Your task to perform on an android device: turn on data saver in the chrome app Image 0: 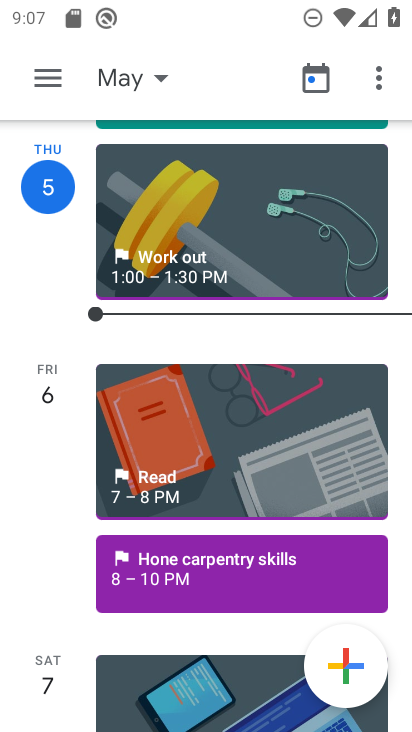
Step 0: press home button
Your task to perform on an android device: turn on data saver in the chrome app Image 1: 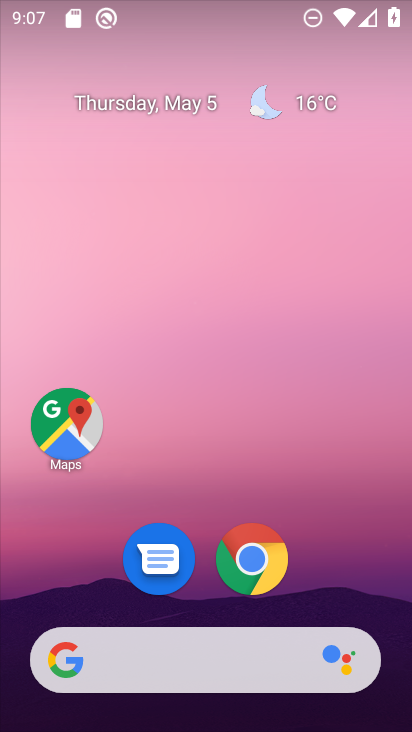
Step 1: click (258, 562)
Your task to perform on an android device: turn on data saver in the chrome app Image 2: 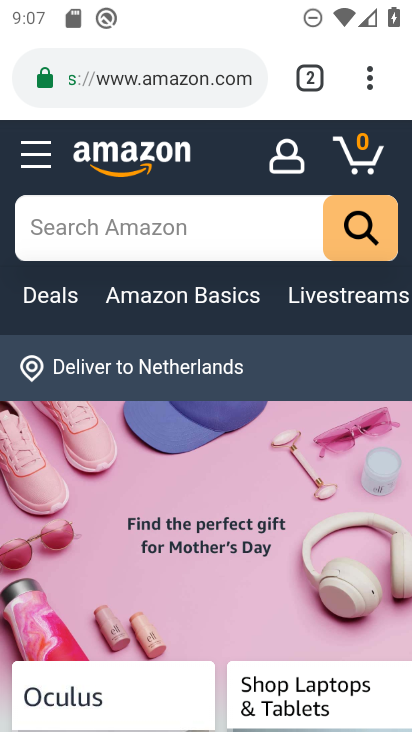
Step 2: drag from (371, 76) to (128, 621)
Your task to perform on an android device: turn on data saver in the chrome app Image 3: 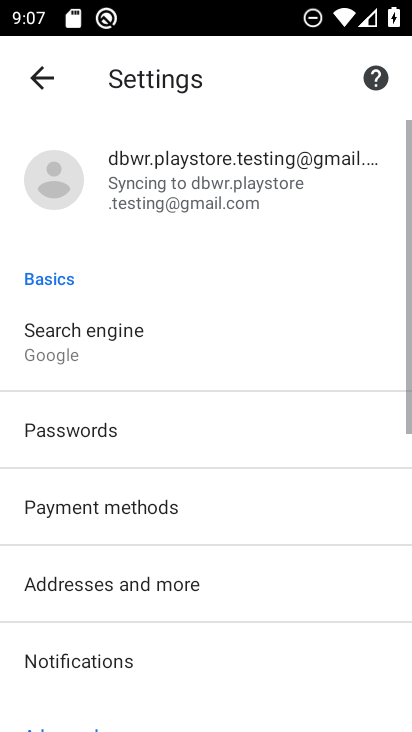
Step 3: drag from (208, 648) to (236, 135)
Your task to perform on an android device: turn on data saver in the chrome app Image 4: 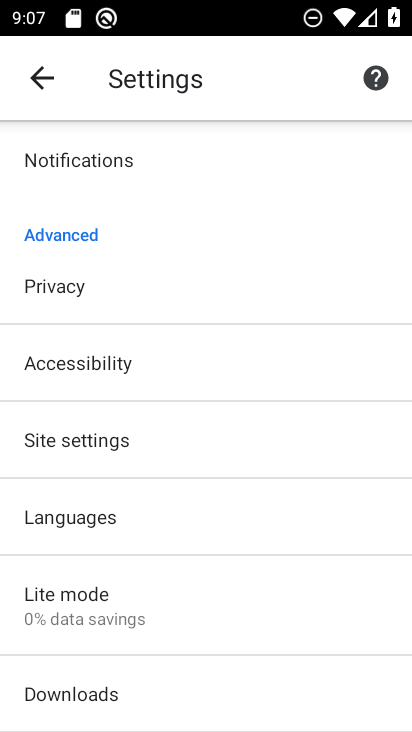
Step 4: click (70, 601)
Your task to perform on an android device: turn on data saver in the chrome app Image 5: 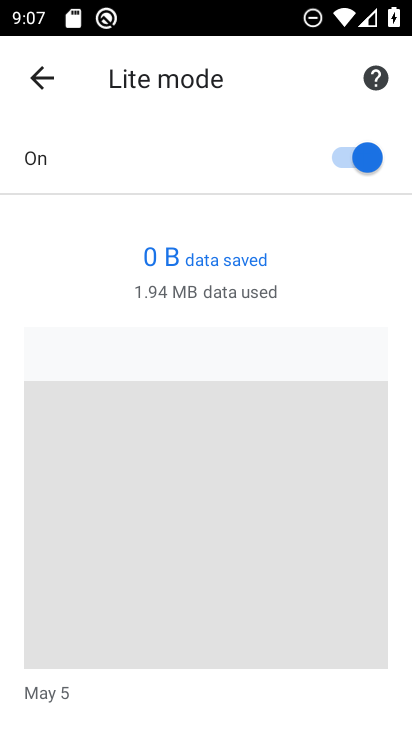
Step 5: task complete